Your task to perform on an android device: uninstall "PUBG MOBILE" Image 0: 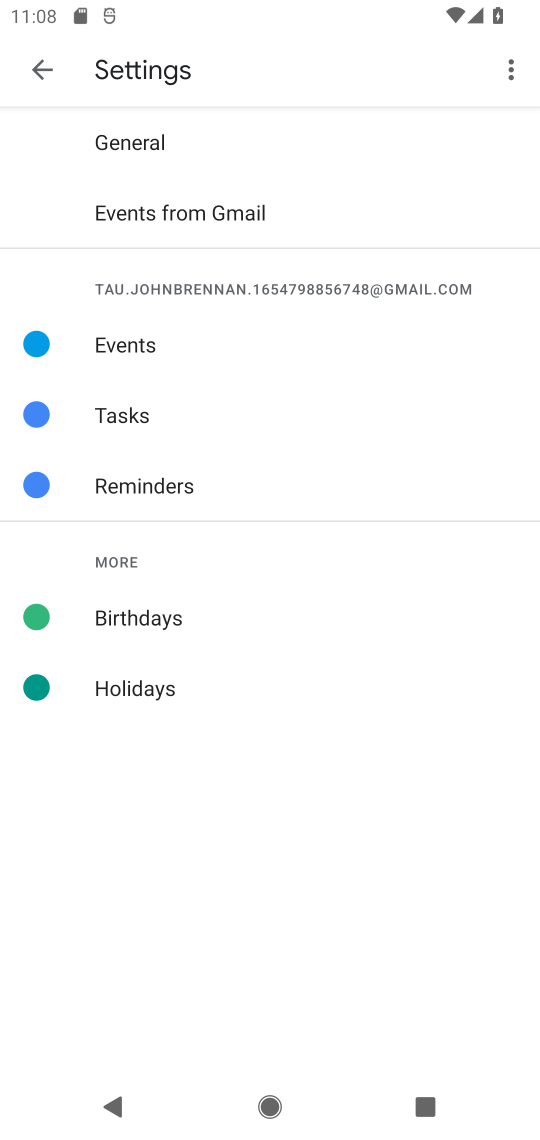
Step 0: press home button
Your task to perform on an android device: uninstall "PUBG MOBILE" Image 1: 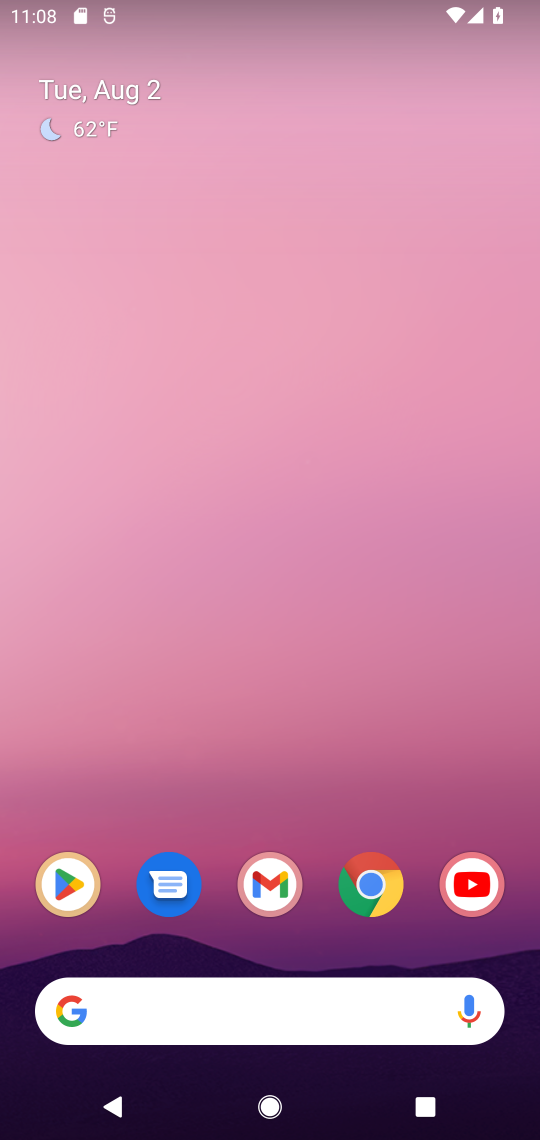
Step 1: click (75, 892)
Your task to perform on an android device: uninstall "PUBG MOBILE" Image 2: 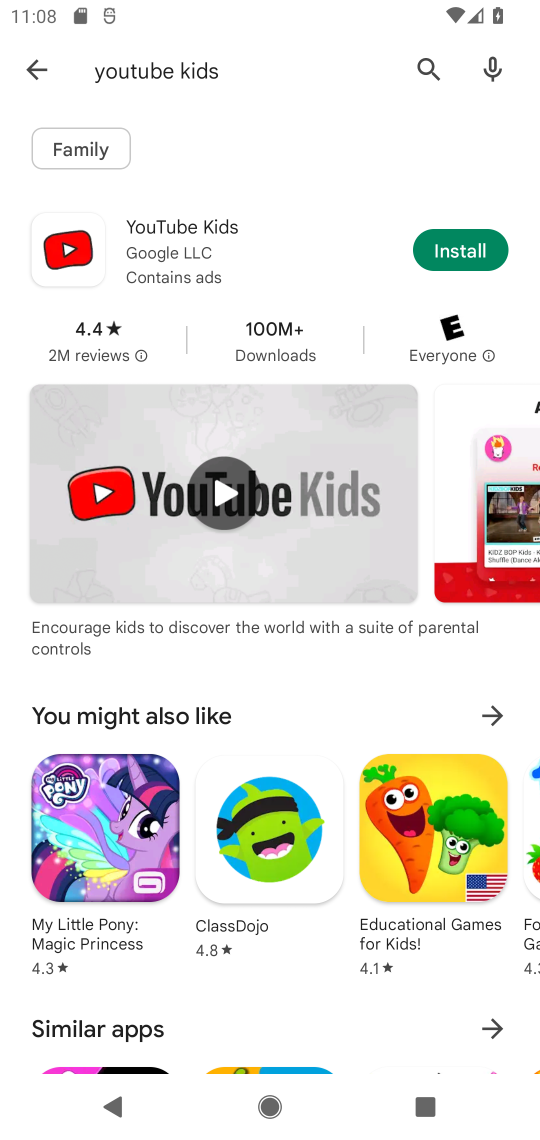
Step 2: click (268, 60)
Your task to perform on an android device: uninstall "PUBG MOBILE" Image 3: 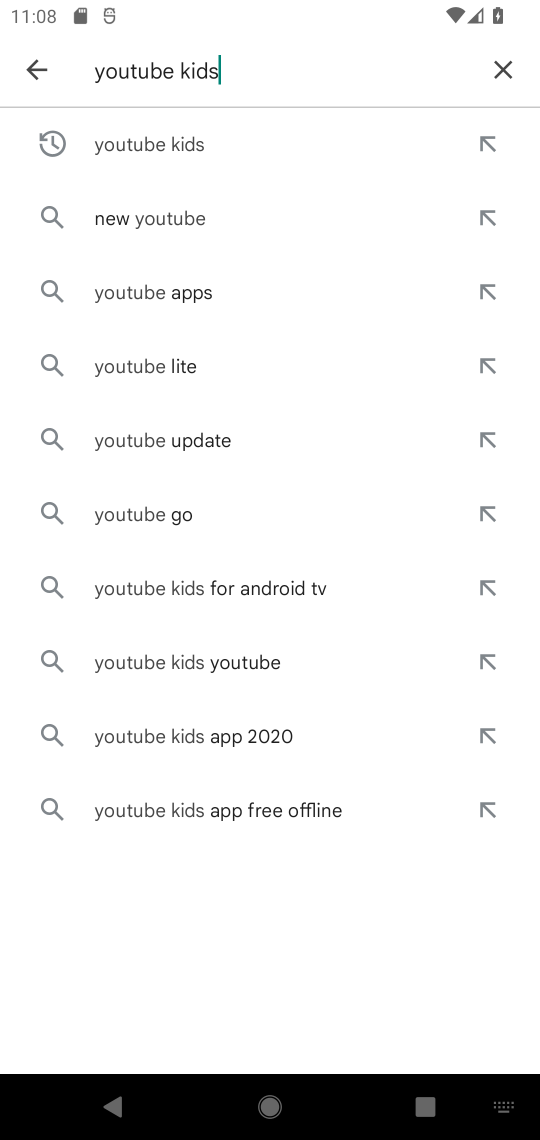
Step 3: click (511, 68)
Your task to perform on an android device: uninstall "PUBG MOBILE" Image 4: 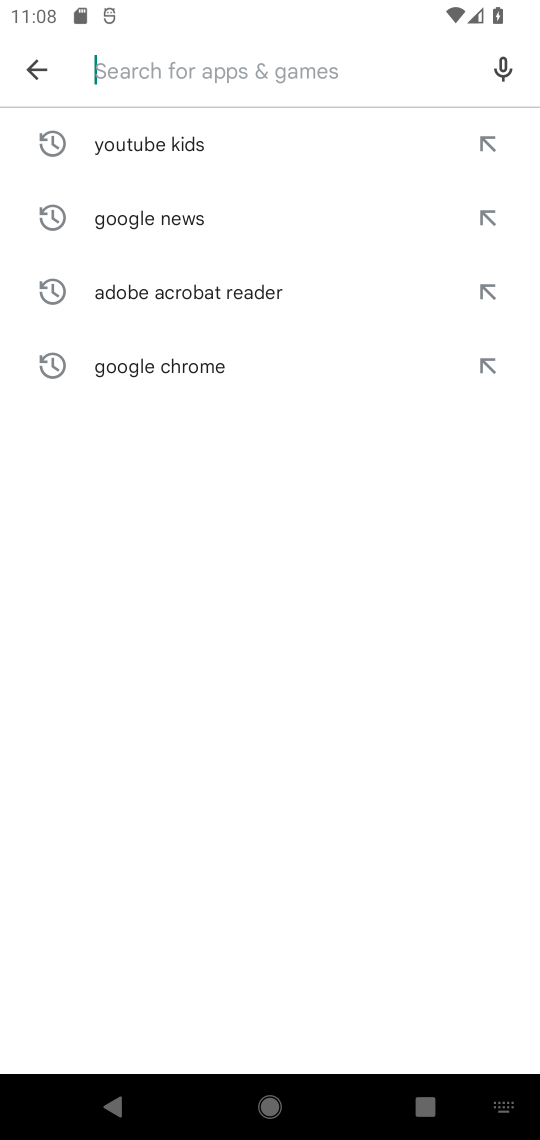
Step 4: type "pubg "
Your task to perform on an android device: uninstall "PUBG MOBILE" Image 5: 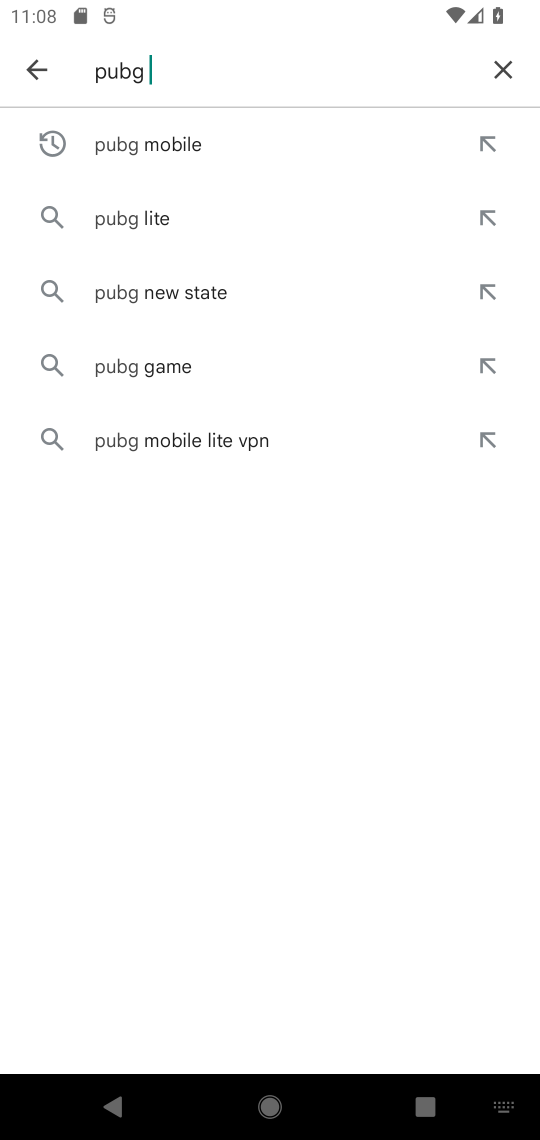
Step 5: click (190, 138)
Your task to perform on an android device: uninstall "PUBG MOBILE" Image 6: 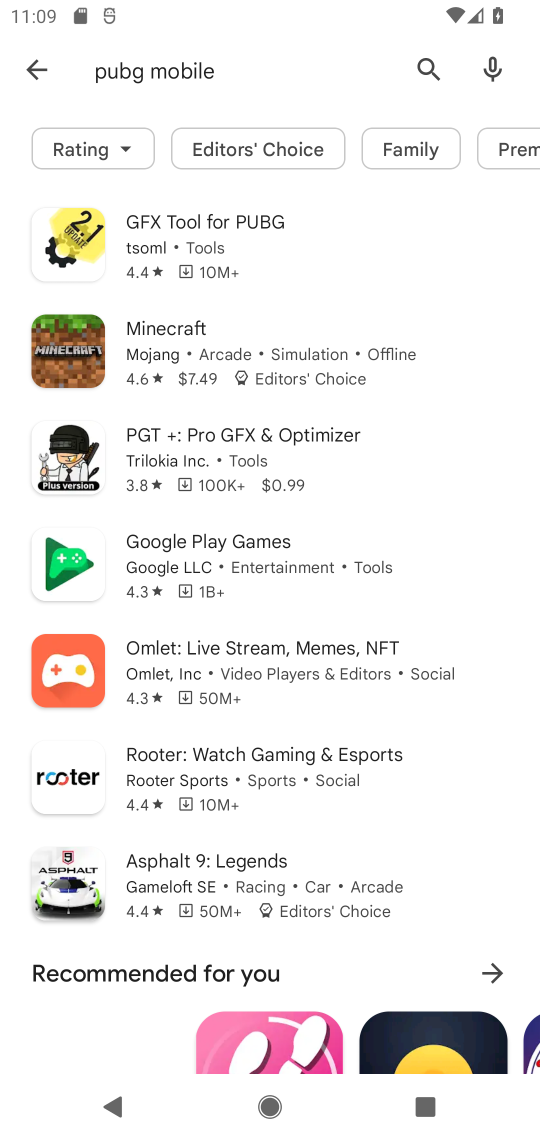
Step 6: task complete